Your task to perform on an android device: Open calendar and show me the third week of next month Image 0: 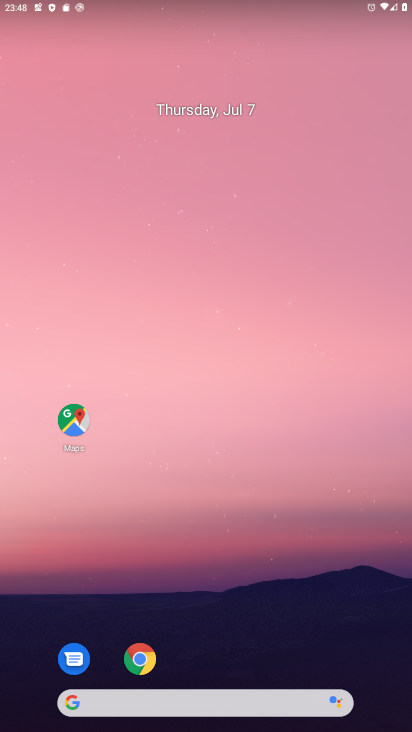
Step 0: click (235, 110)
Your task to perform on an android device: Open calendar and show me the third week of next month Image 1: 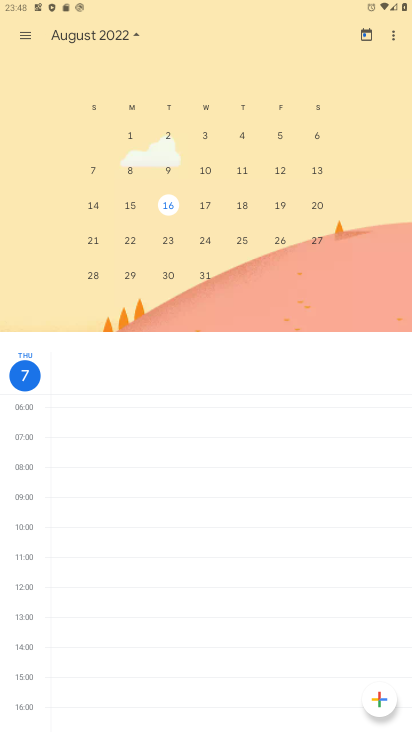
Step 1: task complete